Your task to perform on an android device: Clear the cart on newegg.com. Add "acer predator" to the cart on newegg.com Image 0: 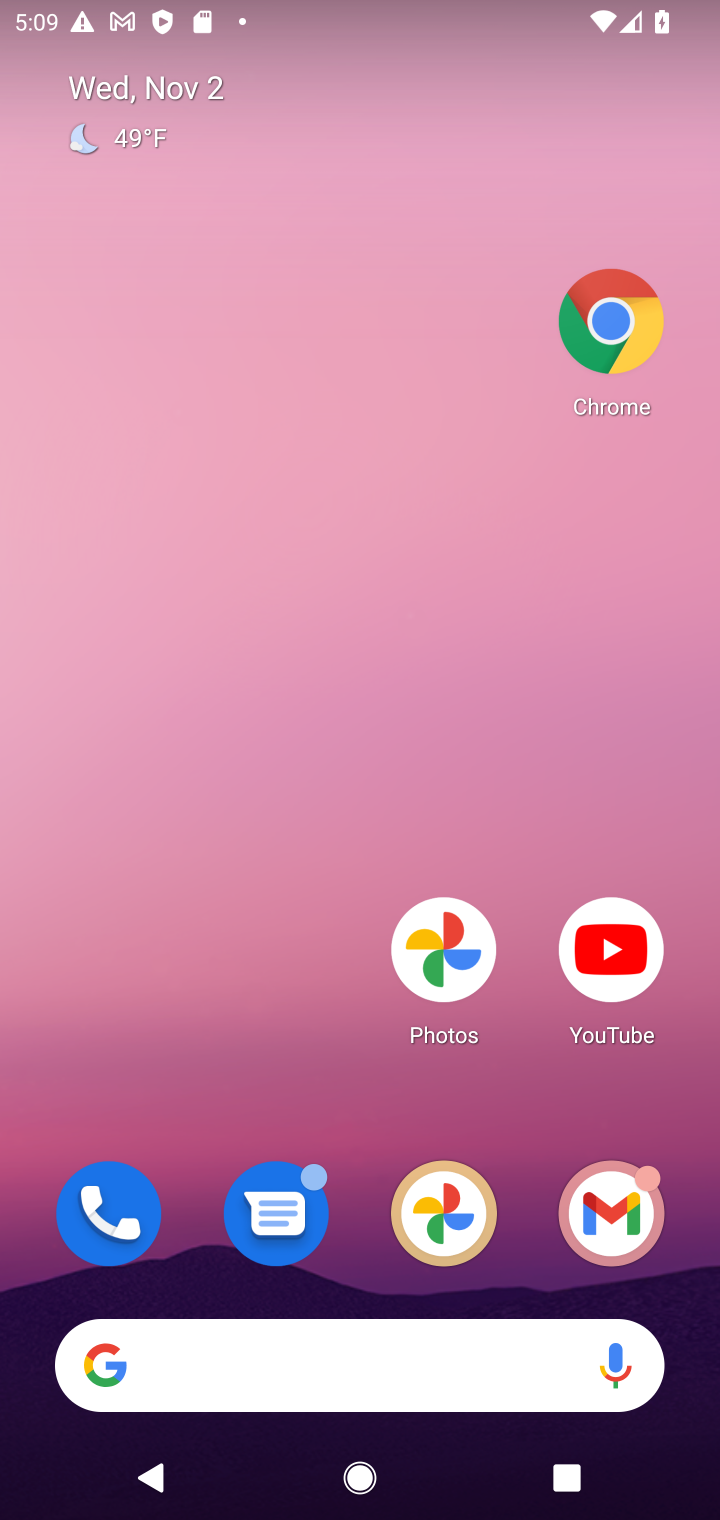
Step 0: click (294, 275)
Your task to perform on an android device: Clear the cart on newegg.com. Add "acer predator" to the cart on newegg.com Image 1: 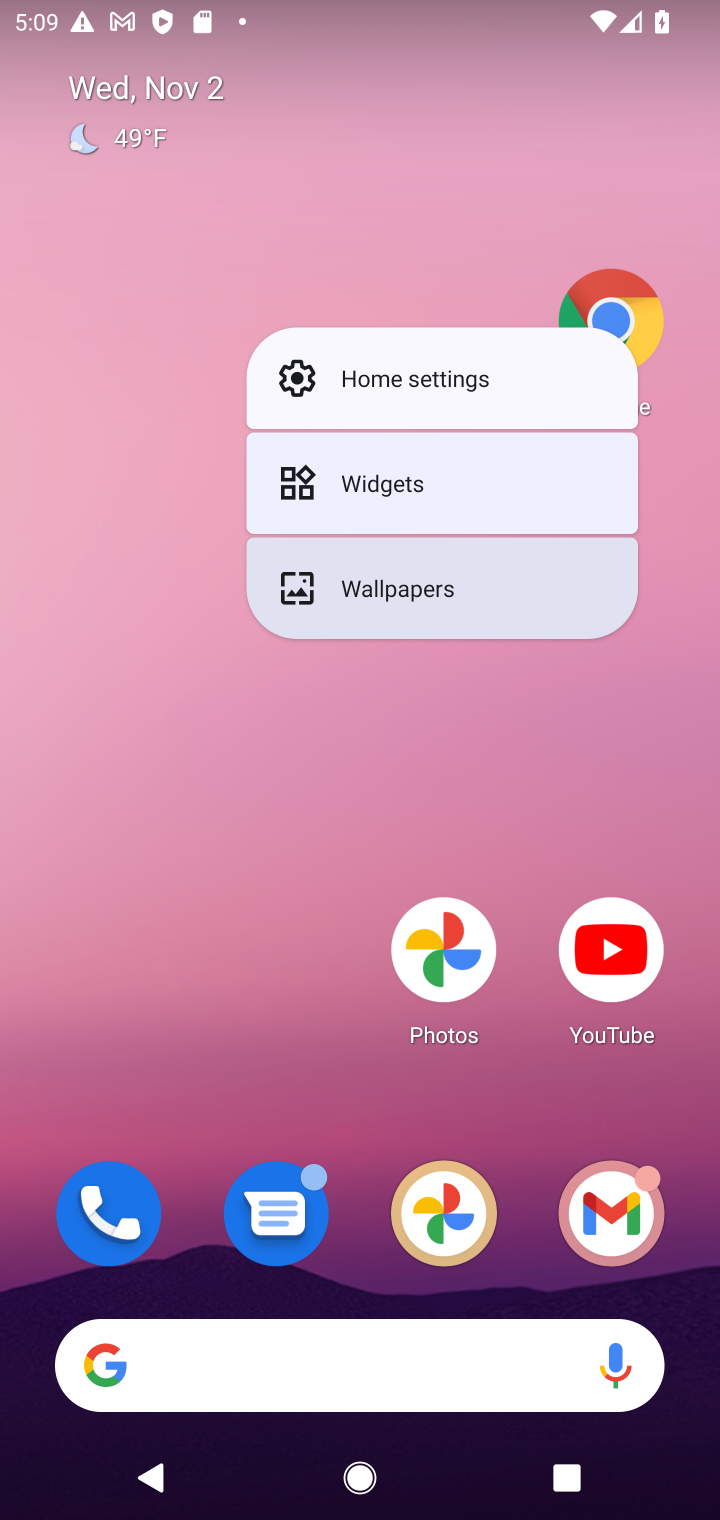
Step 1: click (161, 573)
Your task to perform on an android device: Clear the cart on newegg.com. Add "acer predator" to the cart on newegg.com Image 2: 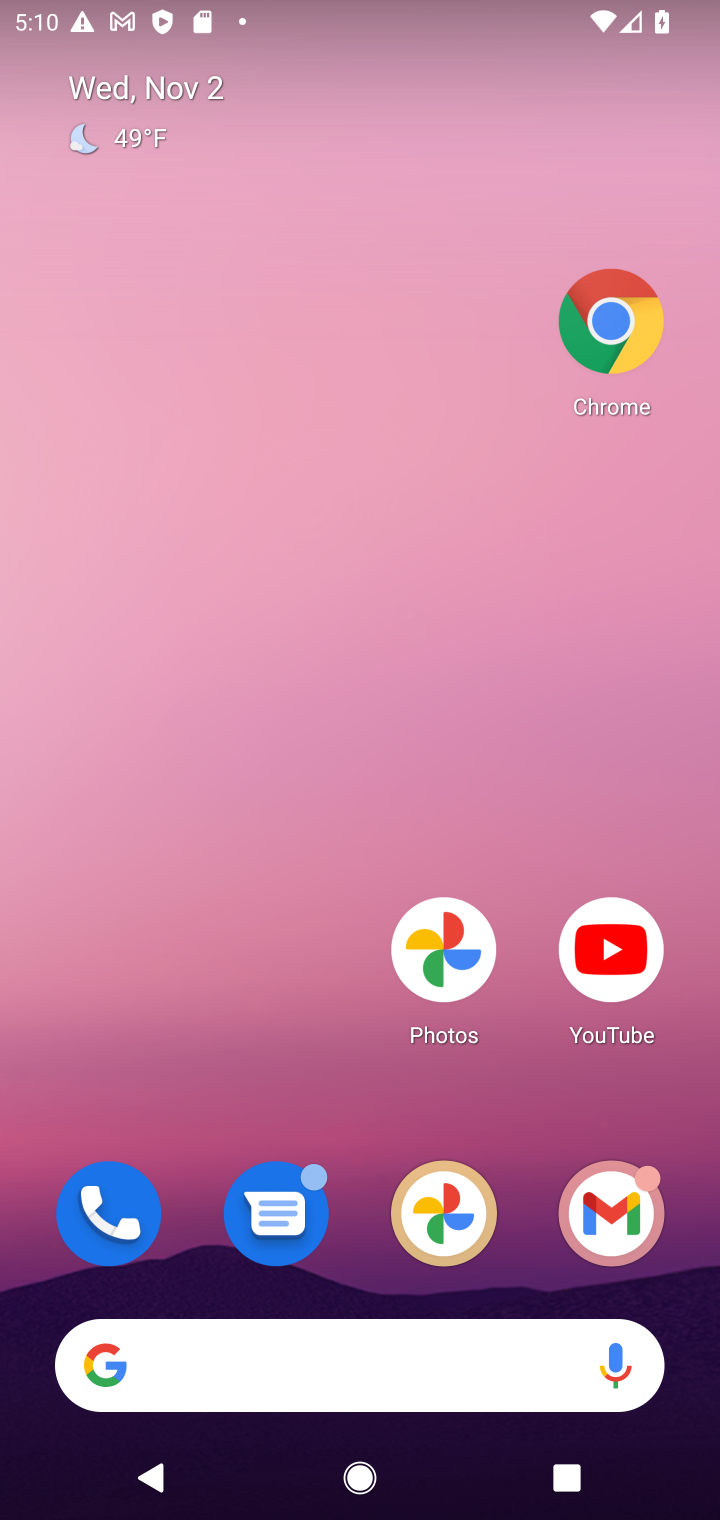
Step 2: drag from (251, 388) to (330, 33)
Your task to perform on an android device: Clear the cart on newegg.com. Add "acer predator" to the cart on newegg.com Image 3: 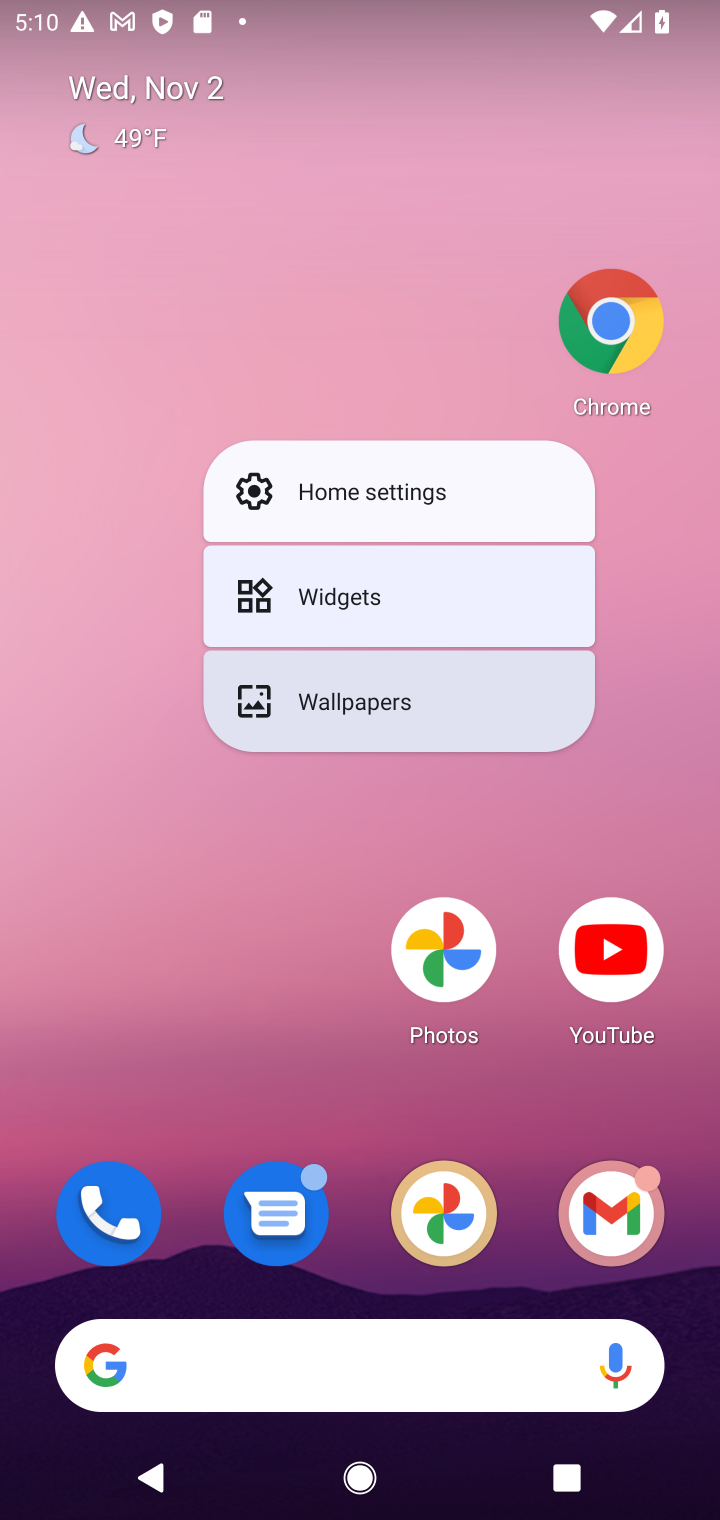
Step 3: click (156, 332)
Your task to perform on an android device: Clear the cart on newegg.com. Add "acer predator" to the cart on newegg.com Image 4: 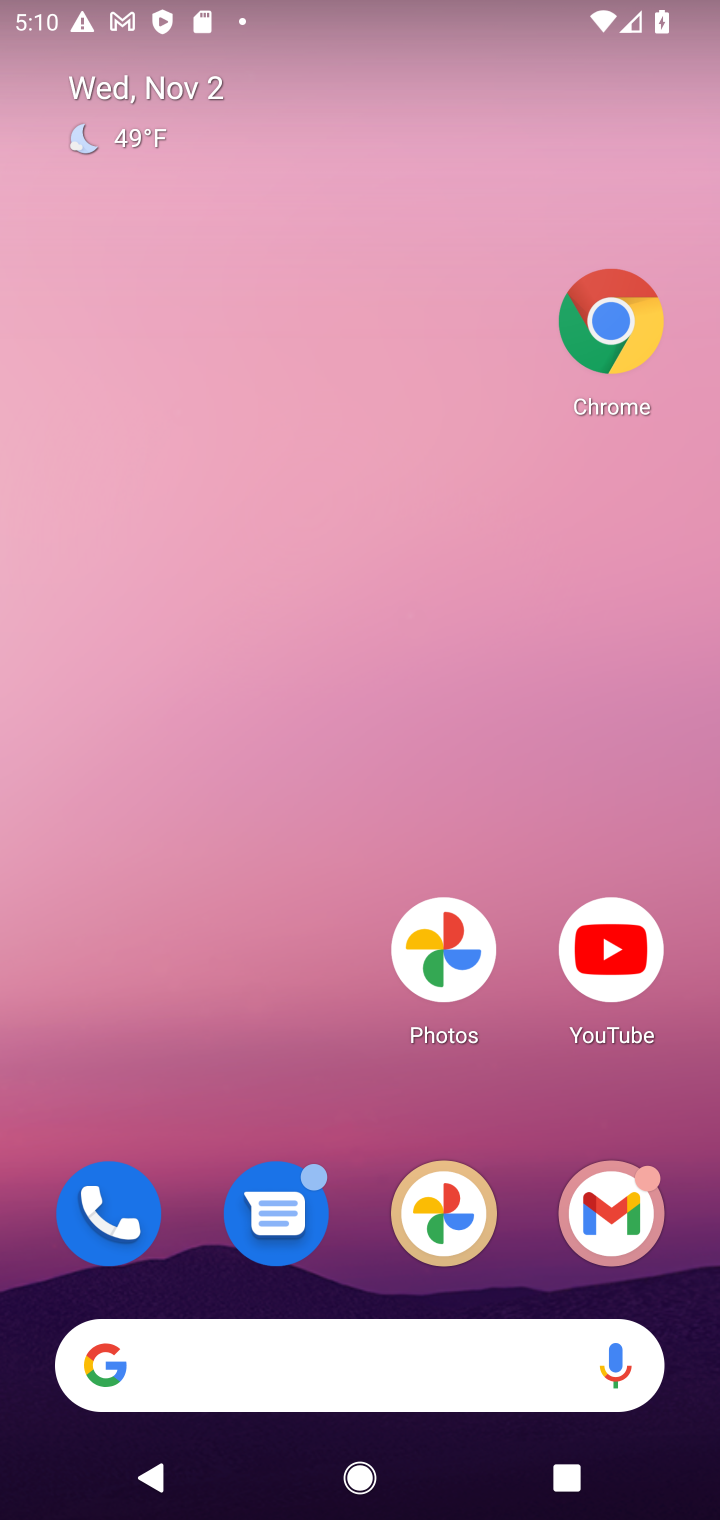
Step 4: drag from (388, 1251) to (360, 82)
Your task to perform on an android device: Clear the cart on newegg.com. Add "acer predator" to the cart on newegg.com Image 5: 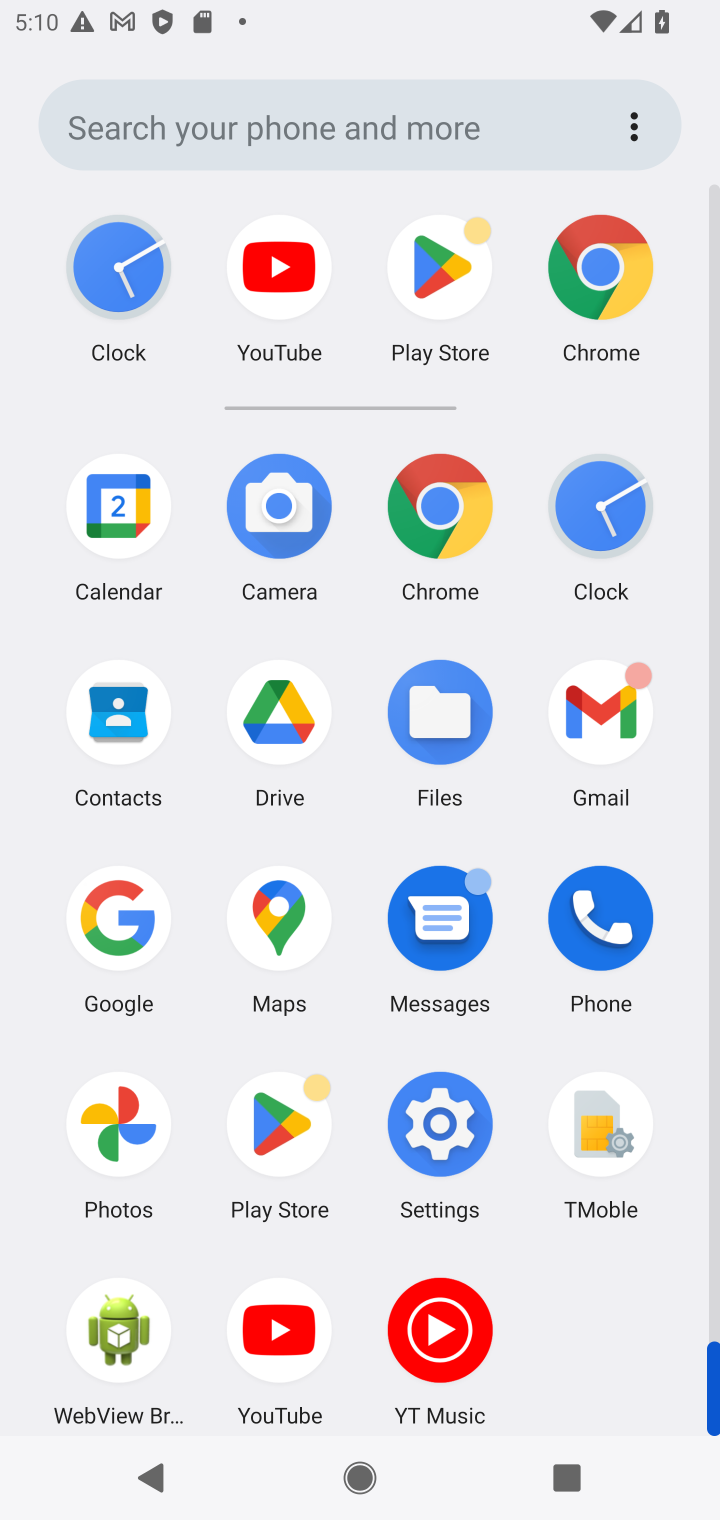
Step 5: click (116, 968)
Your task to perform on an android device: Clear the cart on newegg.com. Add "acer predator" to the cart on newegg.com Image 6: 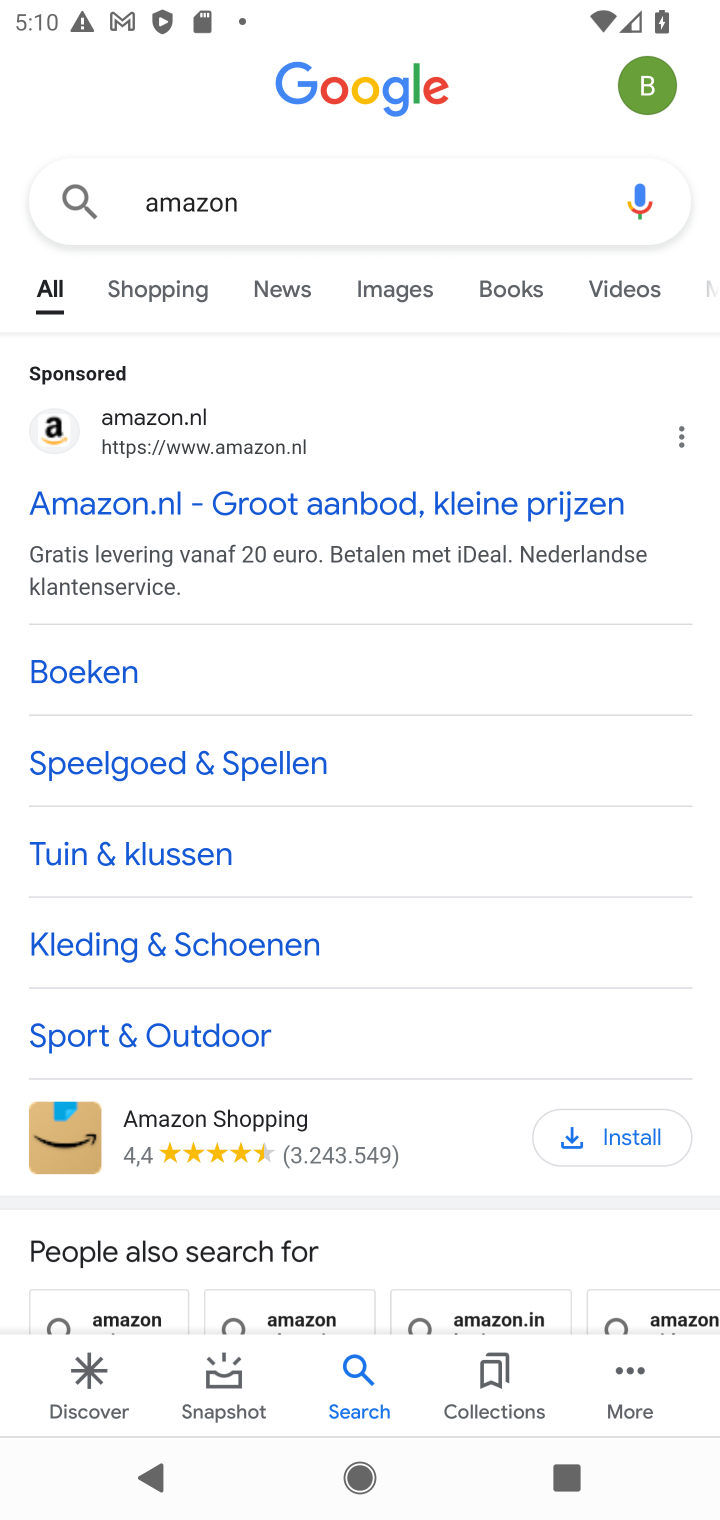
Step 6: click (499, 209)
Your task to perform on an android device: Clear the cart on newegg.com. Add "acer predator" to the cart on newegg.com Image 7: 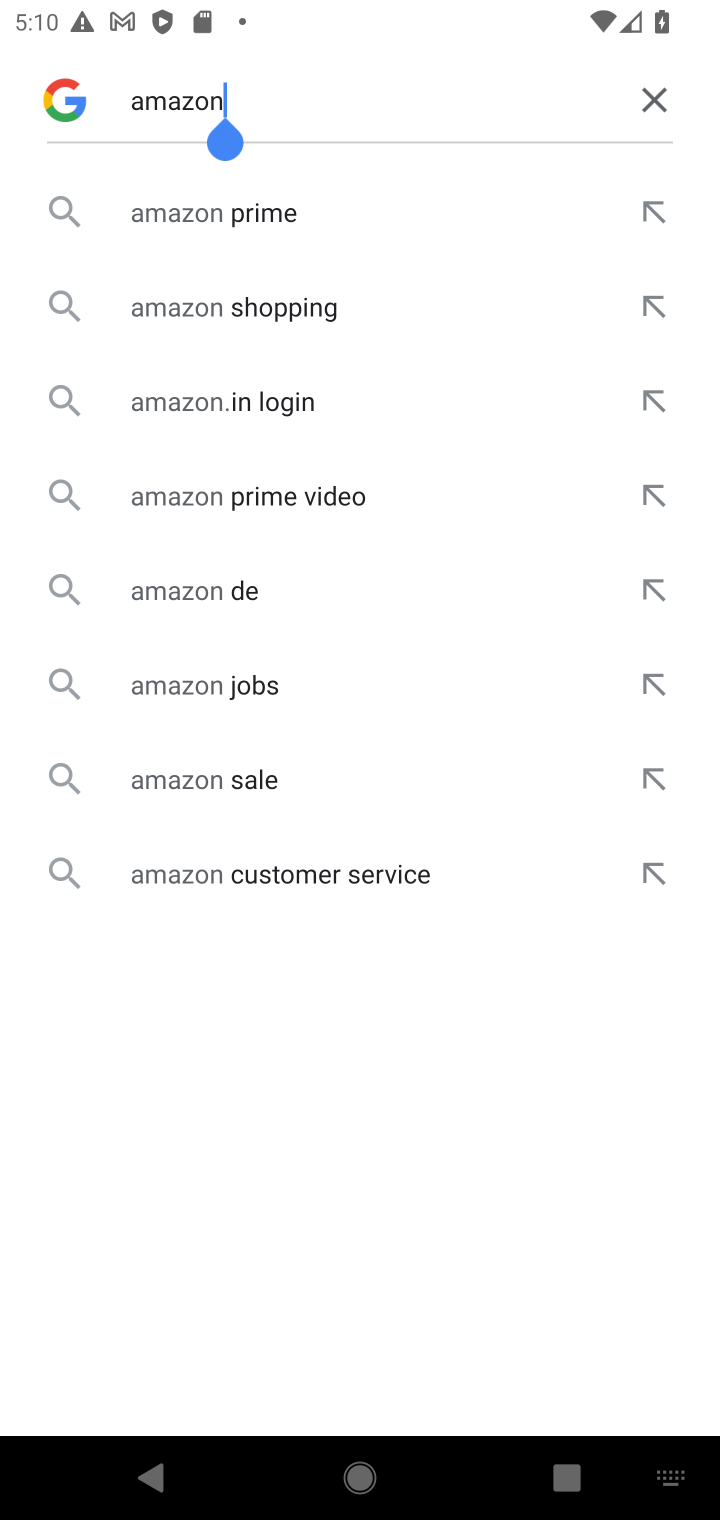
Step 7: click (656, 95)
Your task to perform on an android device: Clear the cart on newegg.com. Add "acer predator" to the cart on newegg.com Image 8: 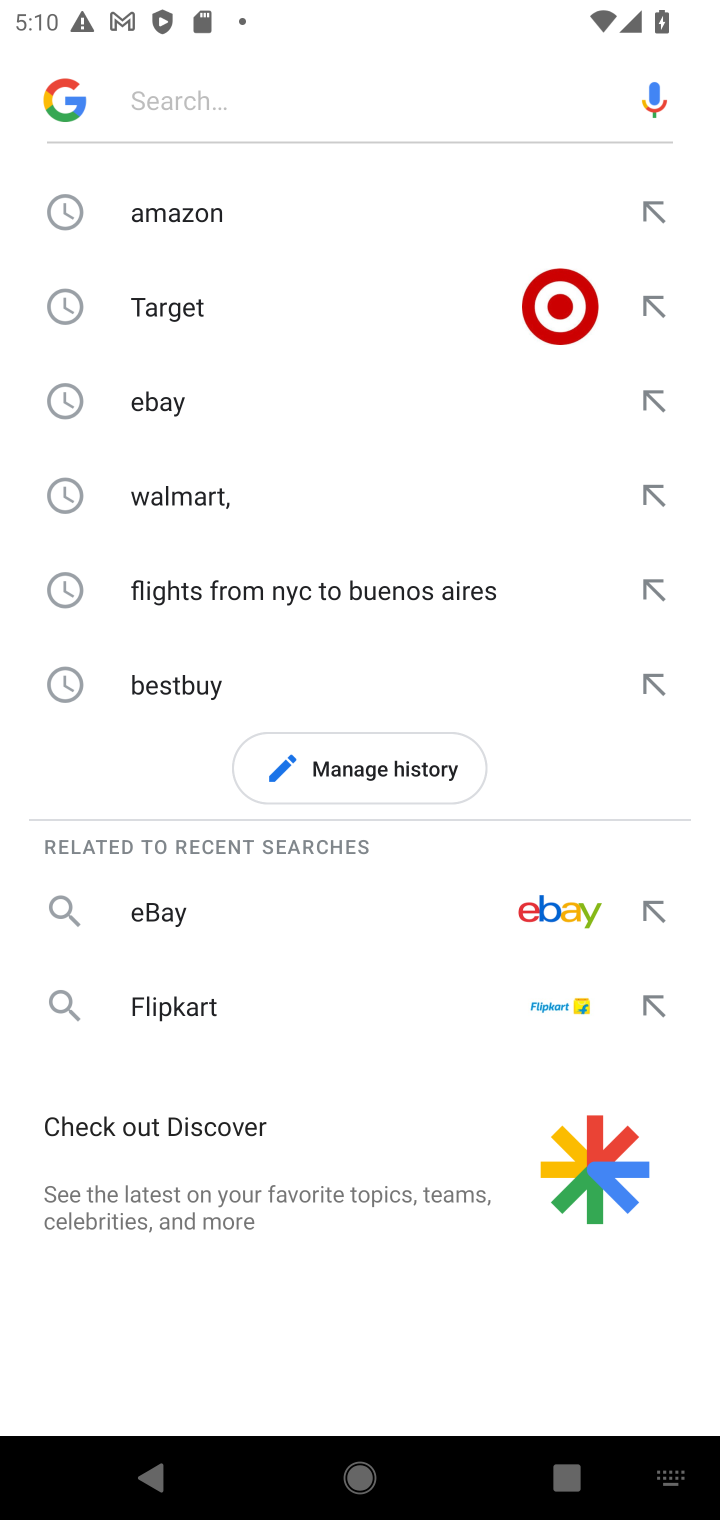
Step 8: type "newegg.com"
Your task to perform on an android device: Clear the cart on newegg.com. Add "acer predator" to the cart on newegg.com Image 9: 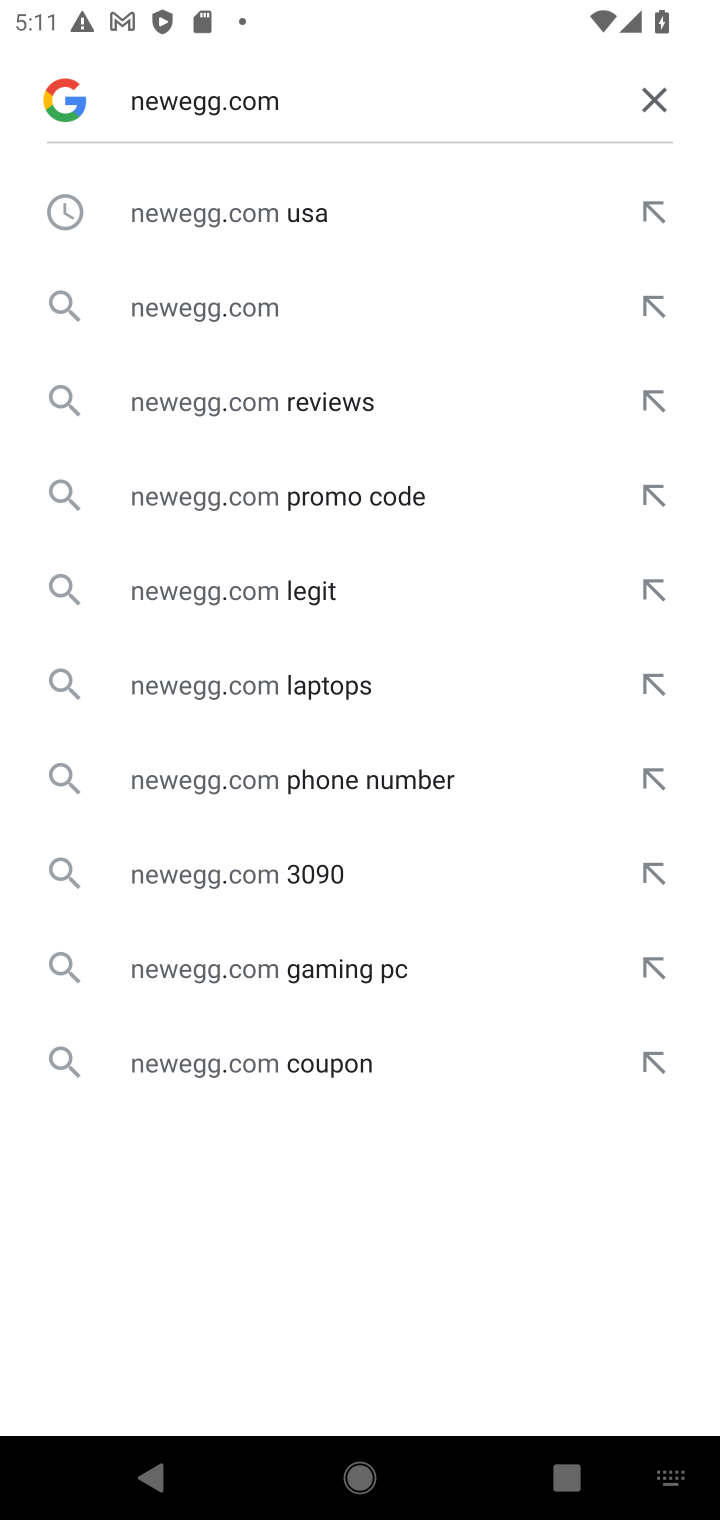
Step 9: click (290, 296)
Your task to perform on an android device: Clear the cart on newegg.com. Add "acer predator" to the cart on newegg.com Image 10: 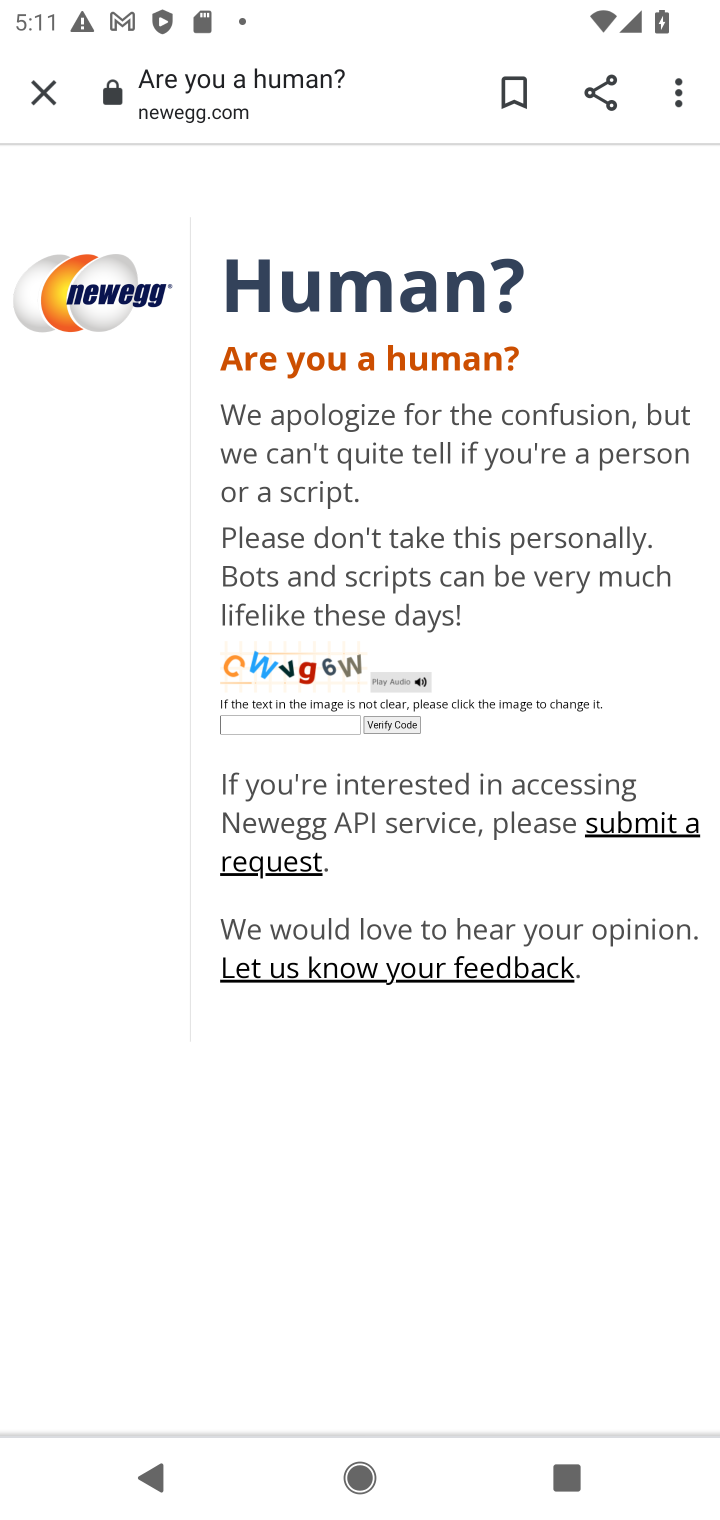
Step 10: task complete